Your task to perform on an android device: Open Android settings Image 0: 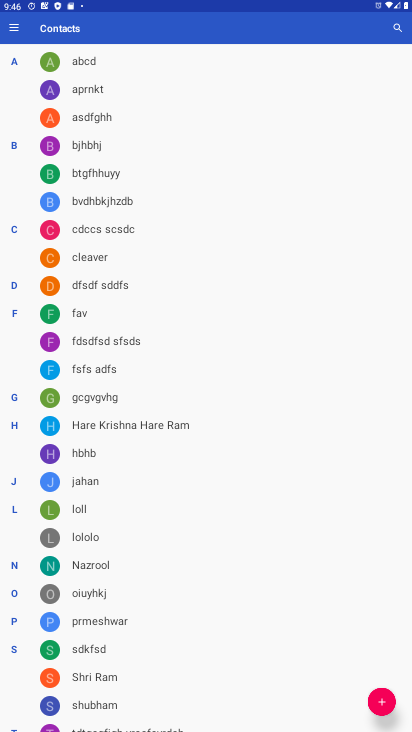
Step 0: press home button
Your task to perform on an android device: Open Android settings Image 1: 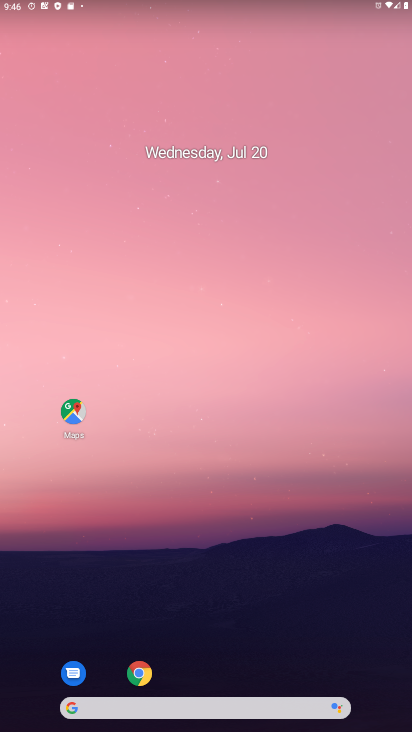
Step 1: drag from (209, 728) to (212, 223)
Your task to perform on an android device: Open Android settings Image 2: 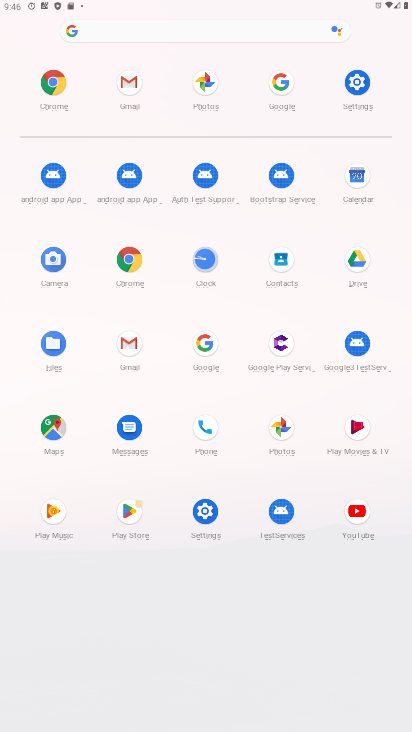
Step 2: click (356, 83)
Your task to perform on an android device: Open Android settings Image 3: 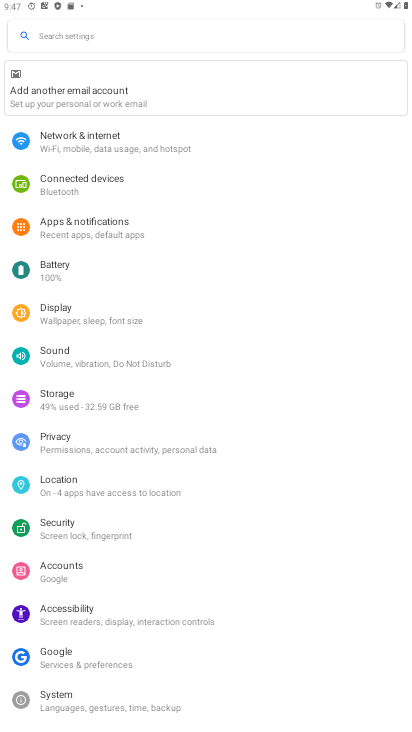
Step 3: task complete